Your task to perform on an android device: stop showing notifications on the lock screen Image 0: 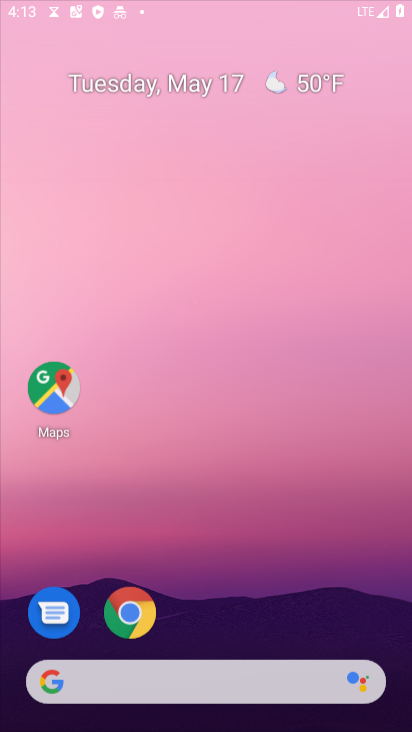
Step 0: click (237, 68)
Your task to perform on an android device: stop showing notifications on the lock screen Image 1: 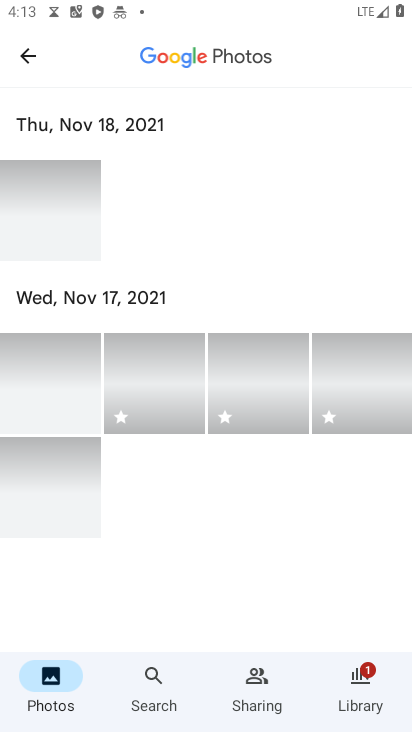
Step 1: drag from (311, 697) to (220, 133)
Your task to perform on an android device: stop showing notifications on the lock screen Image 2: 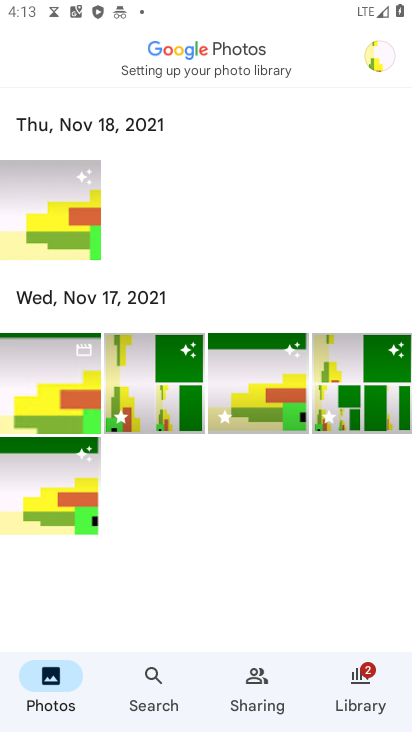
Step 2: press back button
Your task to perform on an android device: stop showing notifications on the lock screen Image 3: 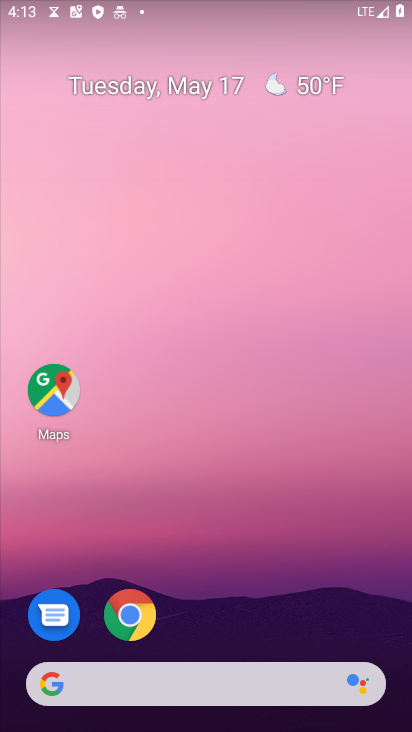
Step 3: drag from (256, 647) to (177, 93)
Your task to perform on an android device: stop showing notifications on the lock screen Image 4: 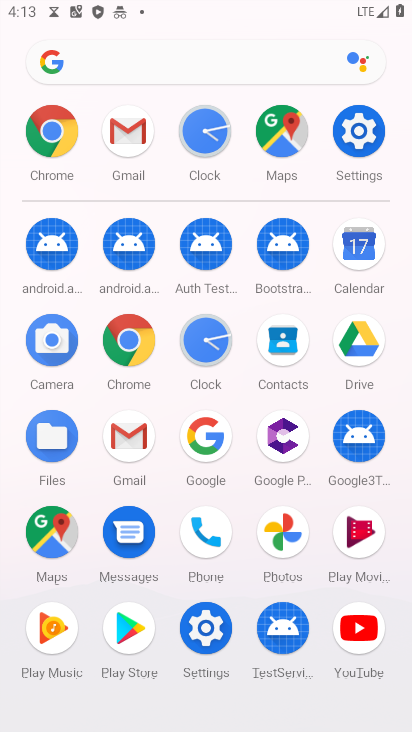
Step 4: click (357, 131)
Your task to perform on an android device: stop showing notifications on the lock screen Image 5: 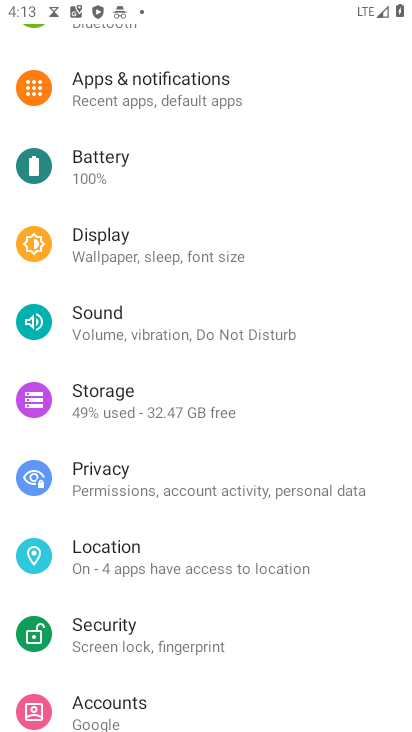
Step 5: click (130, 78)
Your task to perform on an android device: stop showing notifications on the lock screen Image 6: 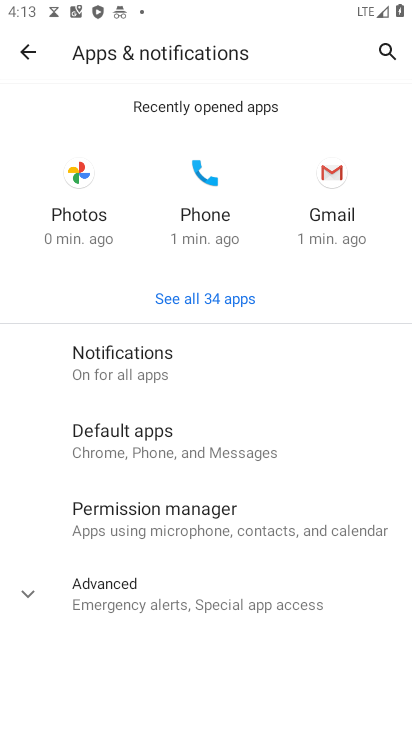
Step 6: click (109, 358)
Your task to perform on an android device: stop showing notifications on the lock screen Image 7: 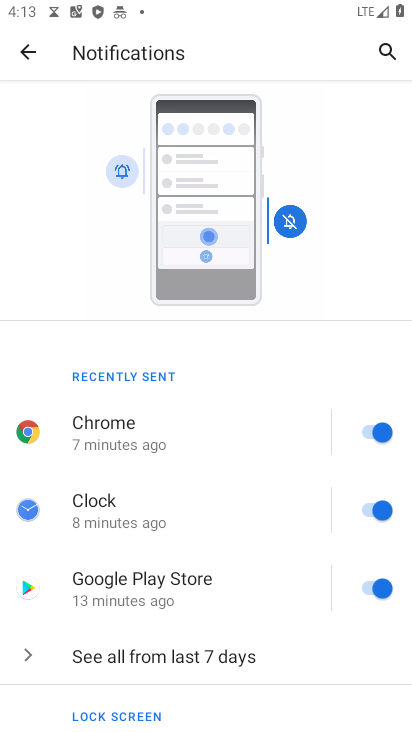
Step 7: drag from (150, 583) to (172, 188)
Your task to perform on an android device: stop showing notifications on the lock screen Image 8: 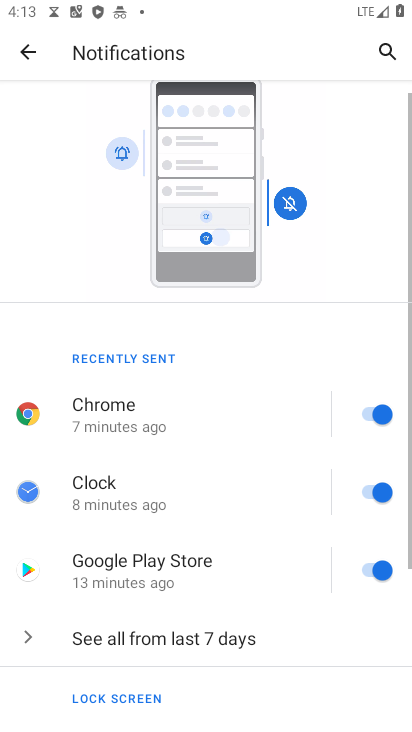
Step 8: drag from (213, 423) to (213, 68)
Your task to perform on an android device: stop showing notifications on the lock screen Image 9: 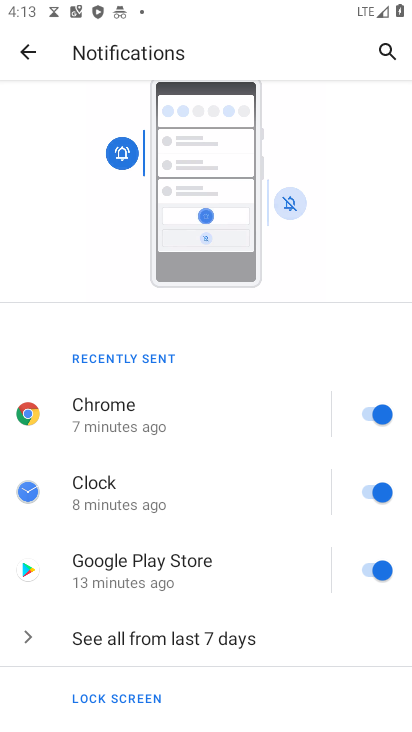
Step 9: drag from (194, 541) to (212, 69)
Your task to perform on an android device: stop showing notifications on the lock screen Image 10: 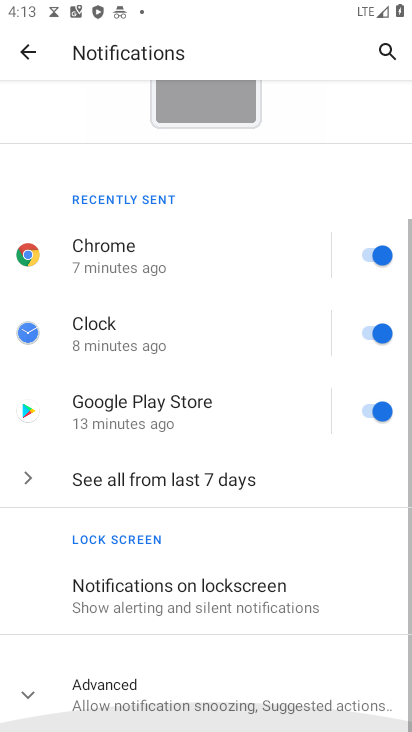
Step 10: drag from (211, 521) to (192, 13)
Your task to perform on an android device: stop showing notifications on the lock screen Image 11: 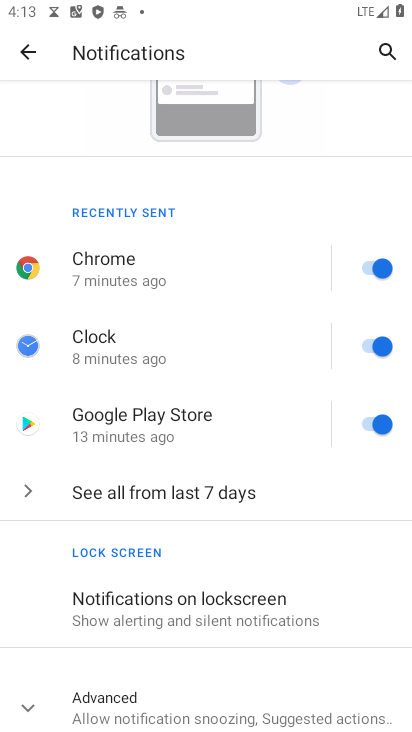
Step 11: click (154, 612)
Your task to perform on an android device: stop showing notifications on the lock screen Image 12: 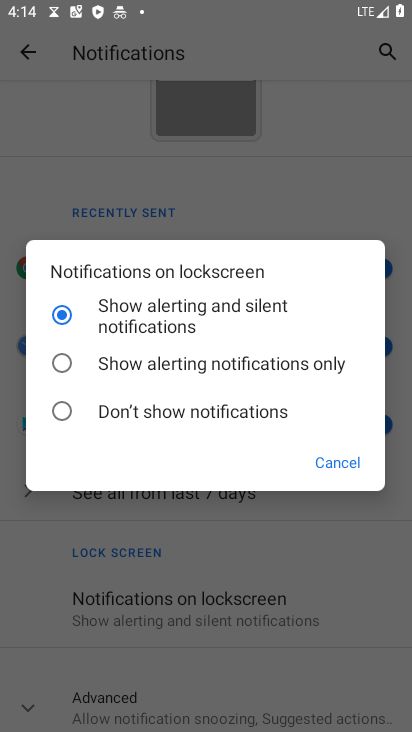
Step 12: click (62, 416)
Your task to perform on an android device: stop showing notifications on the lock screen Image 13: 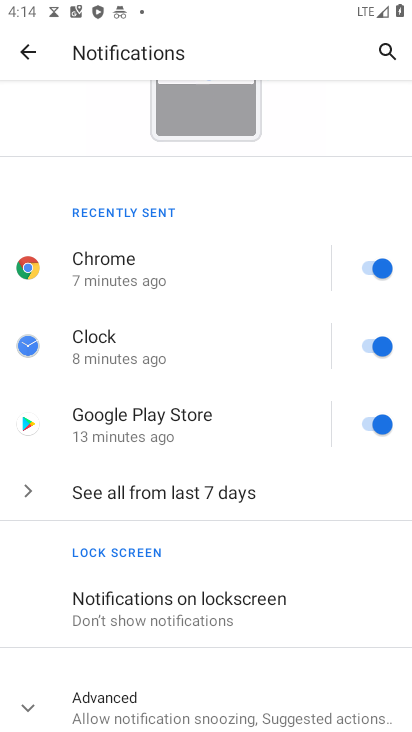
Step 13: task complete